Your task to perform on an android device: change keyboard looks Image 0: 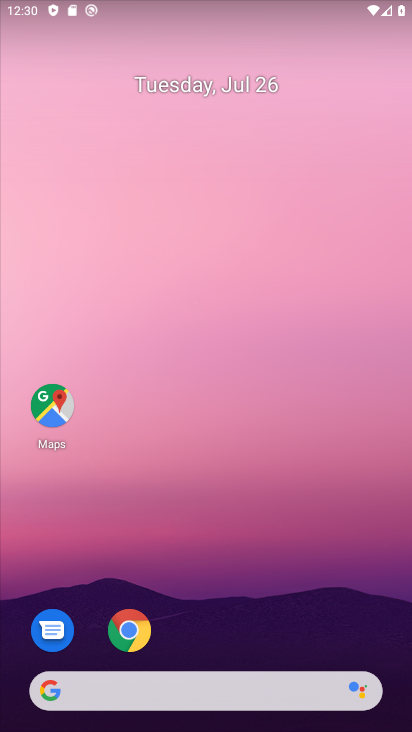
Step 0: drag from (394, 646) to (288, 0)
Your task to perform on an android device: change keyboard looks Image 1: 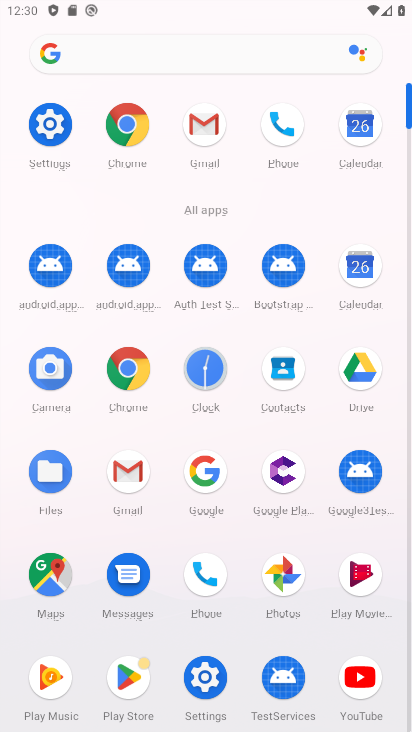
Step 1: click (201, 678)
Your task to perform on an android device: change keyboard looks Image 2: 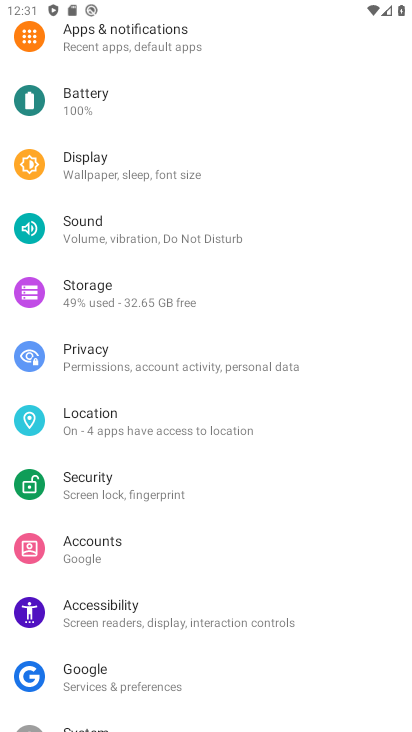
Step 2: drag from (323, 650) to (358, 455)
Your task to perform on an android device: change keyboard looks Image 3: 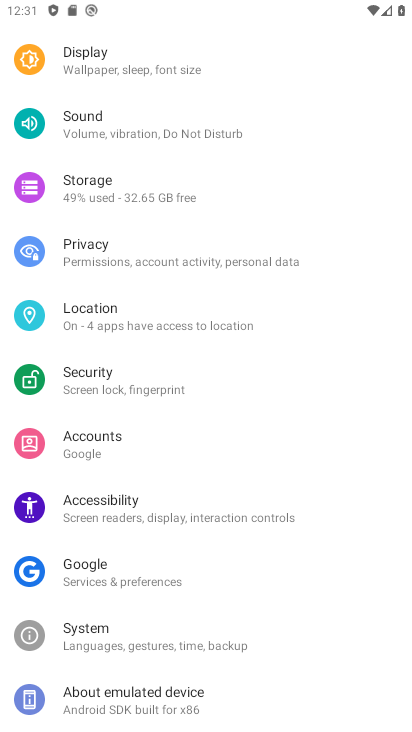
Step 3: click (109, 634)
Your task to perform on an android device: change keyboard looks Image 4: 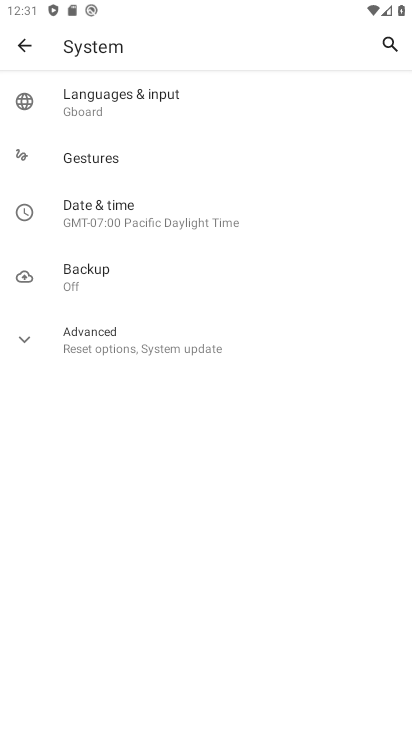
Step 4: click (103, 98)
Your task to perform on an android device: change keyboard looks Image 5: 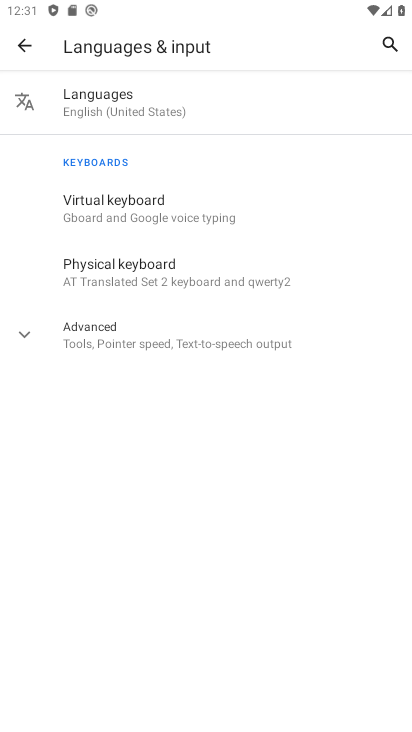
Step 5: click (110, 278)
Your task to perform on an android device: change keyboard looks Image 6: 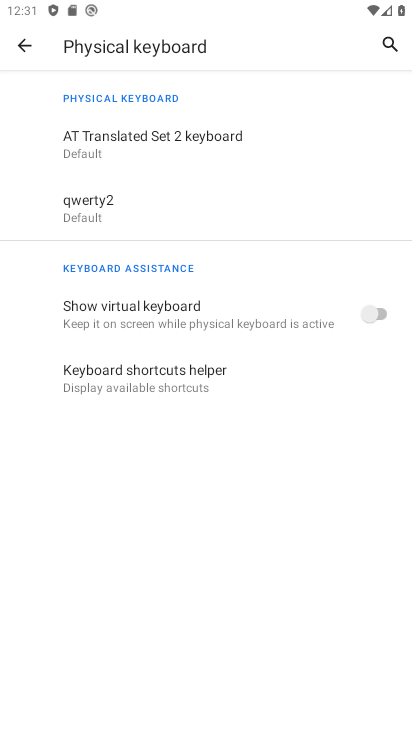
Step 6: click (73, 196)
Your task to perform on an android device: change keyboard looks Image 7: 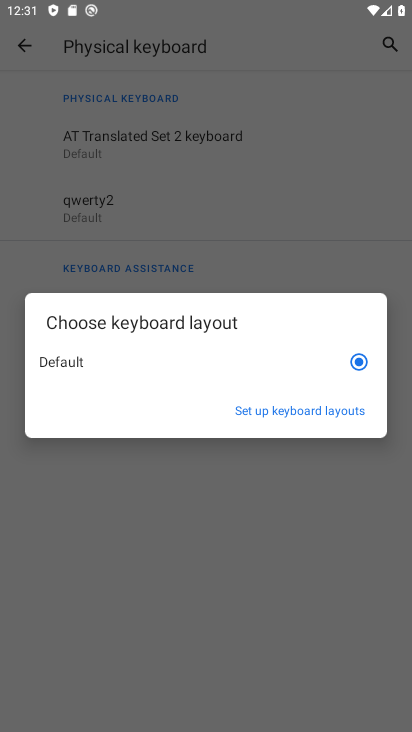
Step 7: click (300, 407)
Your task to perform on an android device: change keyboard looks Image 8: 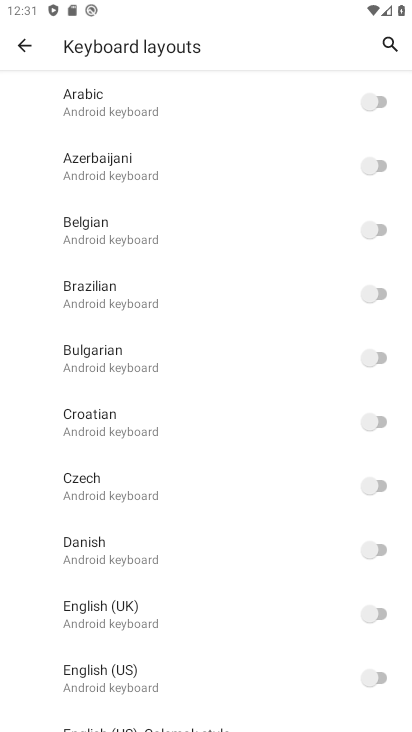
Step 8: click (382, 482)
Your task to perform on an android device: change keyboard looks Image 9: 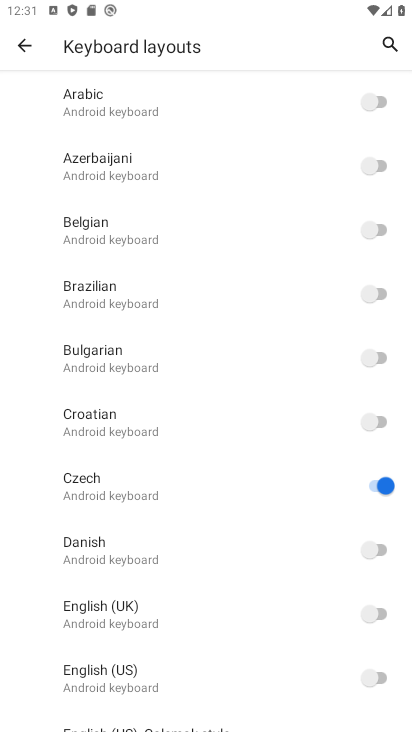
Step 9: task complete